Your task to perform on an android device: Search for "dell xps" on bestbuy, select the first entry, add it to the cart, then select checkout. Image 0: 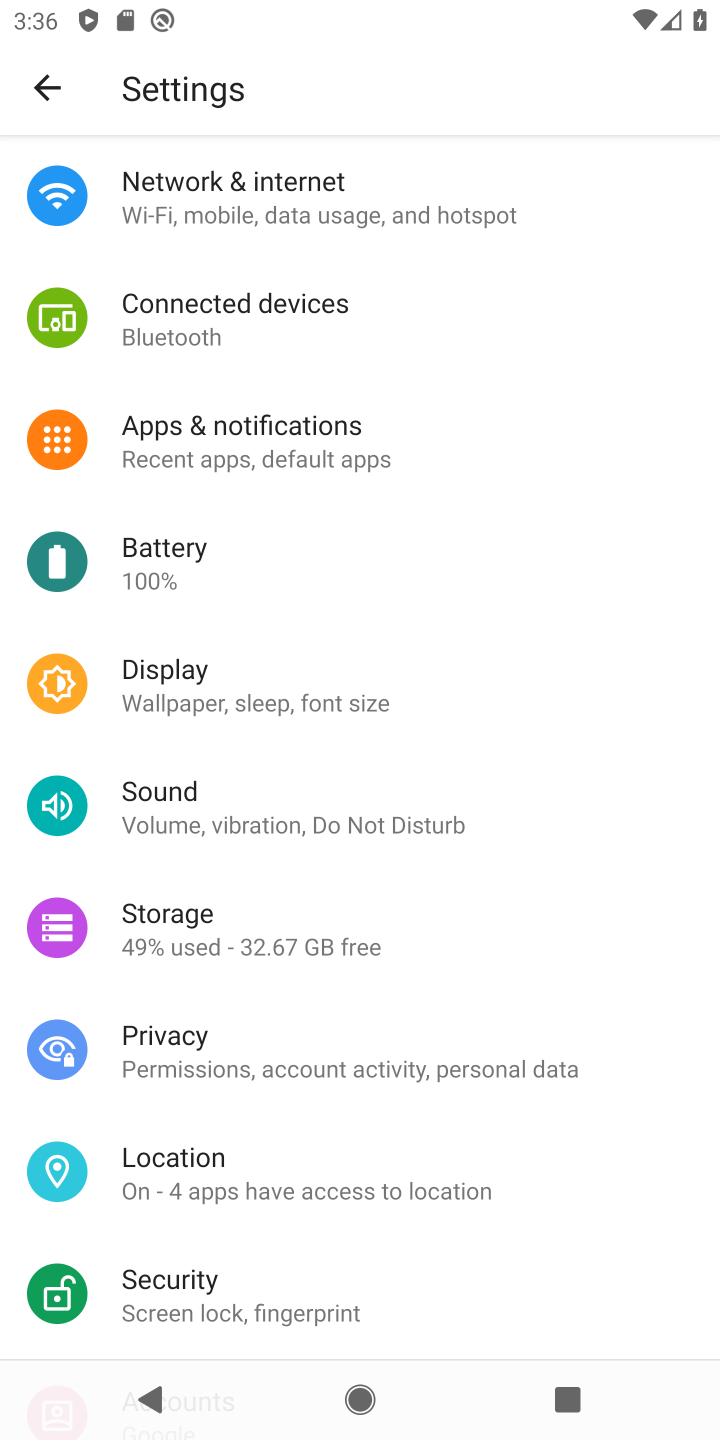
Step 0: press home button
Your task to perform on an android device: Search for "dell xps" on bestbuy, select the first entry, add it to the cart, then select checkout. Image 1: 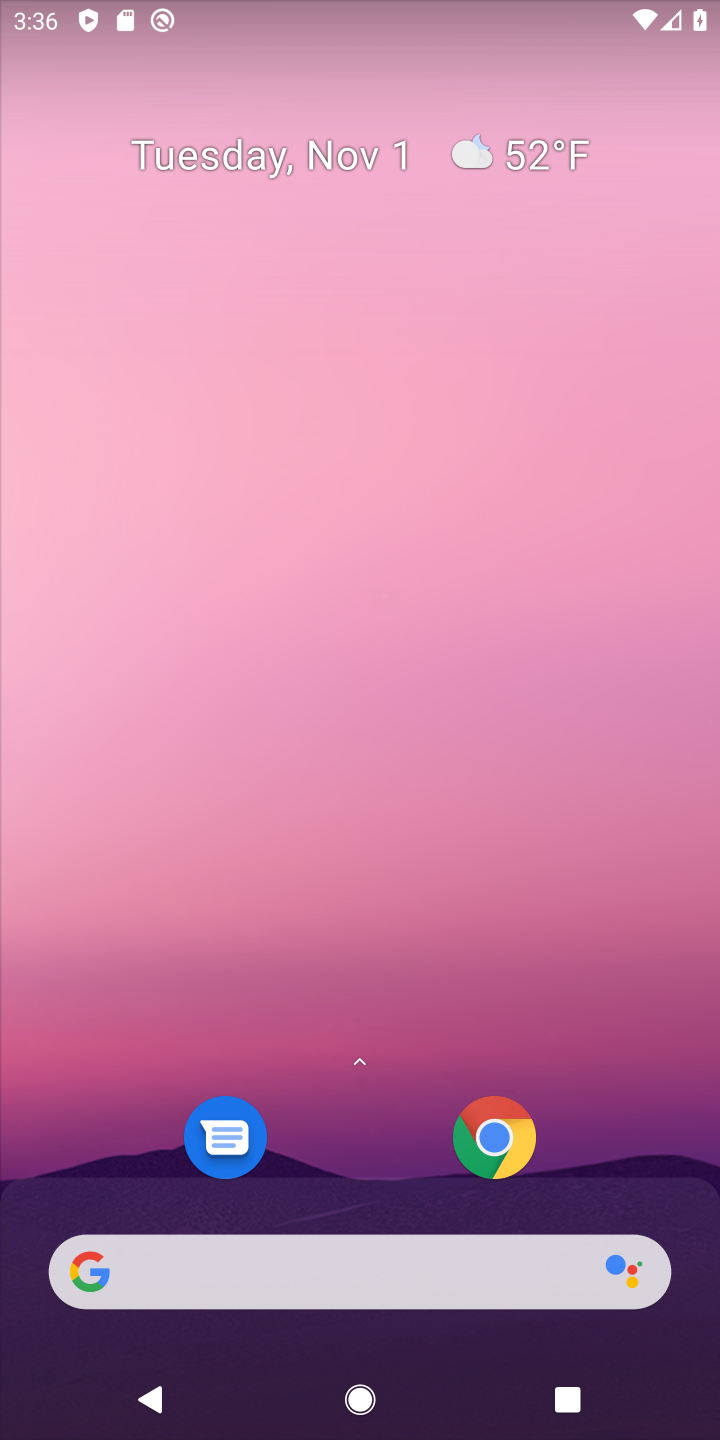
Step 1: click (391, 1239)
Your task to perform on an android device: Search for "dell xps" on bestbuy, select the first entry, add it to the cart, then select checkout. Image 2: 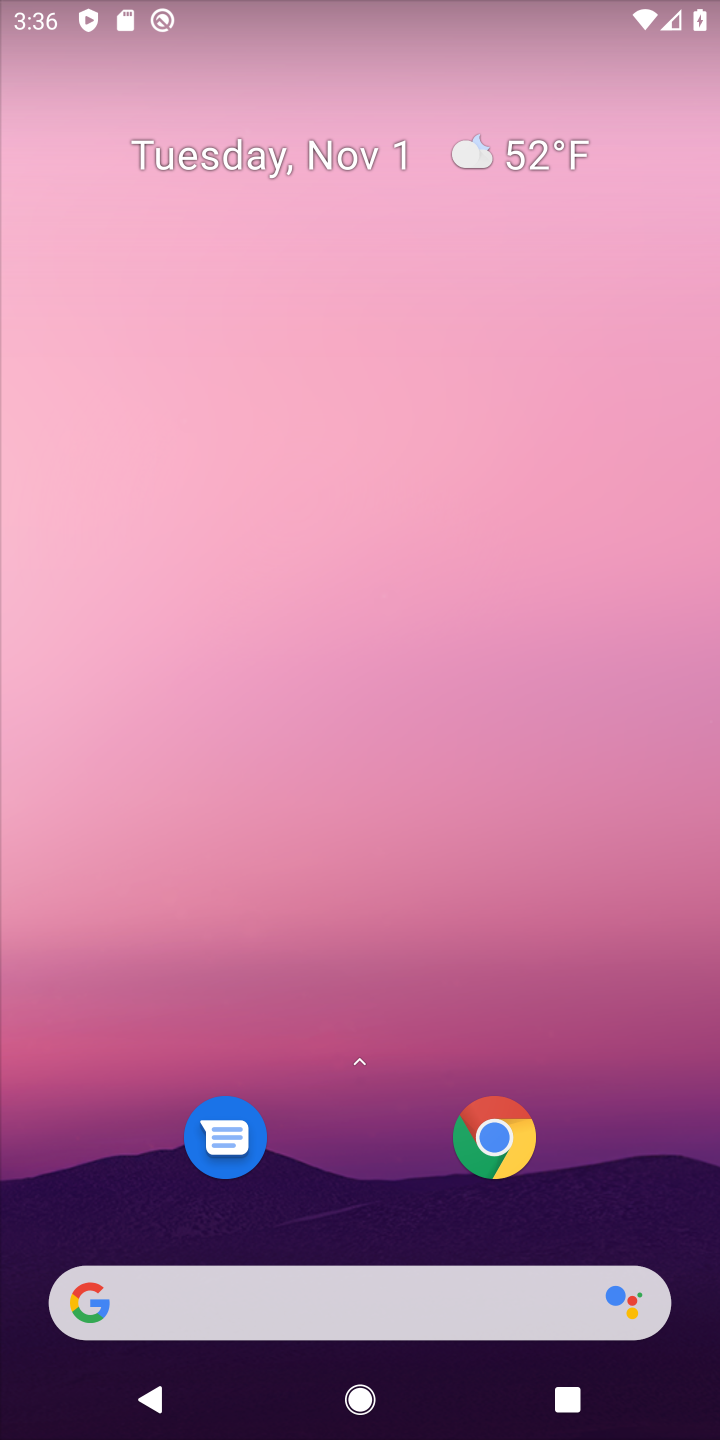
Step 2: click (360, 1269)
Your task to perform on an android device: Search for "dell xps" on bestbuy, select the first entry, add it to the cart, then select checkout. Image 3: 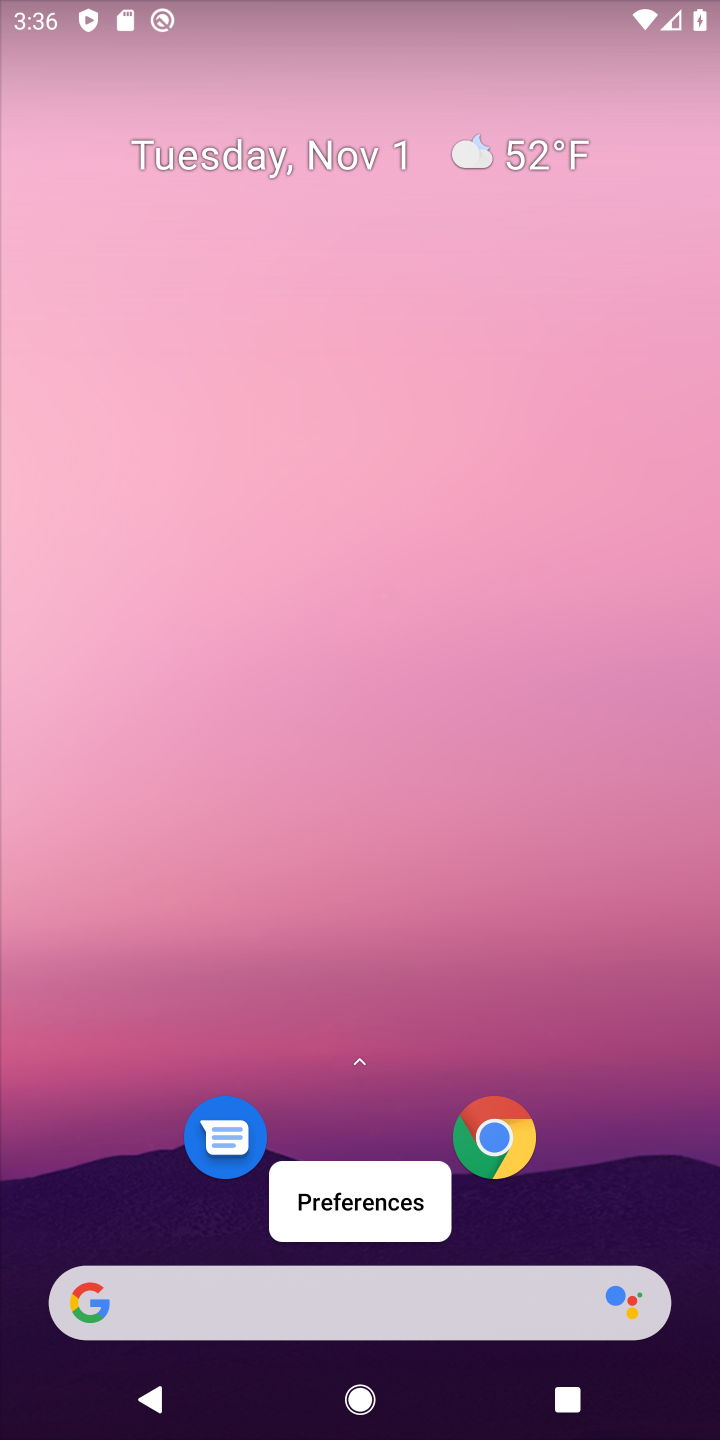
Step 3: click (387, 1295)
Your task to perform on an android device: Search for "dell xps" on bestbuy, select the first entry, add it to the cart, then select checkout. Image 4: 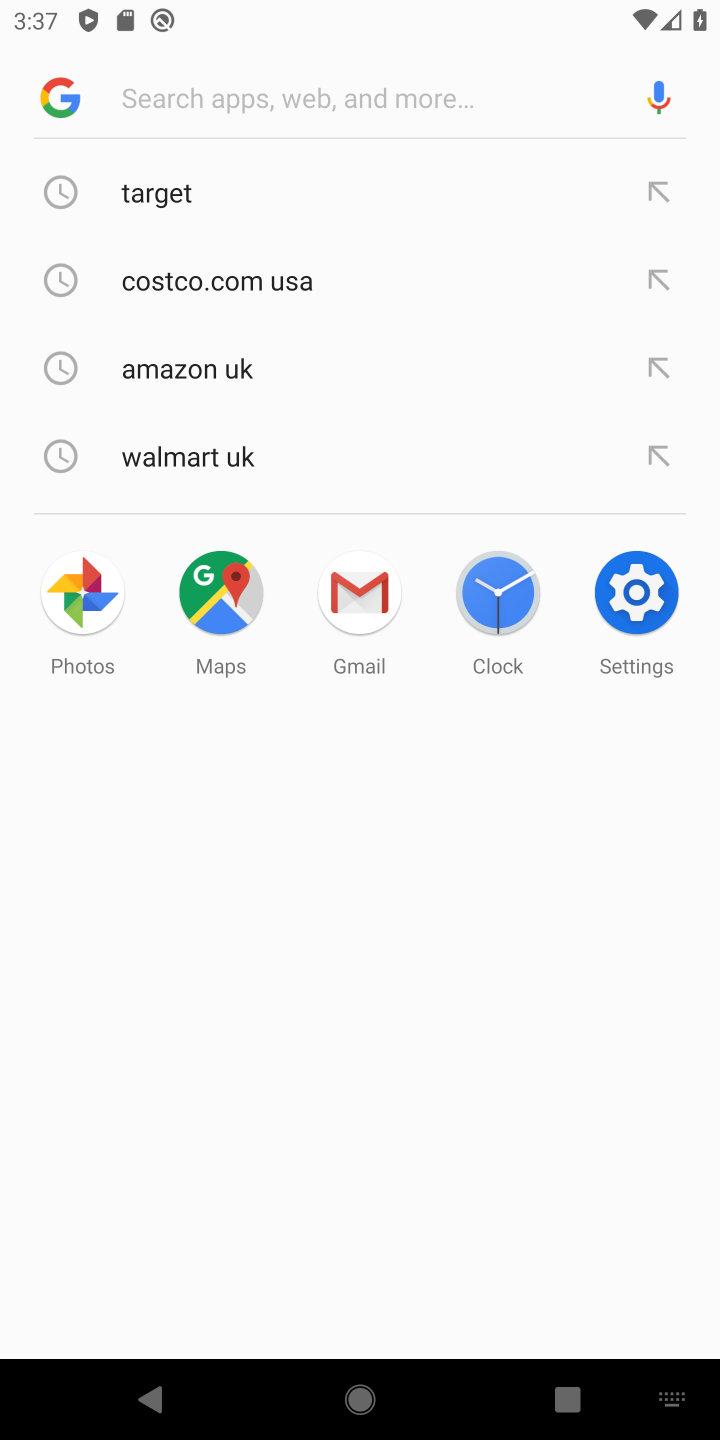
Step 4: type "bestbuy"
Your task to perform on an android device: Search for "dell xps" on bestbuy, select the first entry, add it to the cart, then select checkout. Image 5: 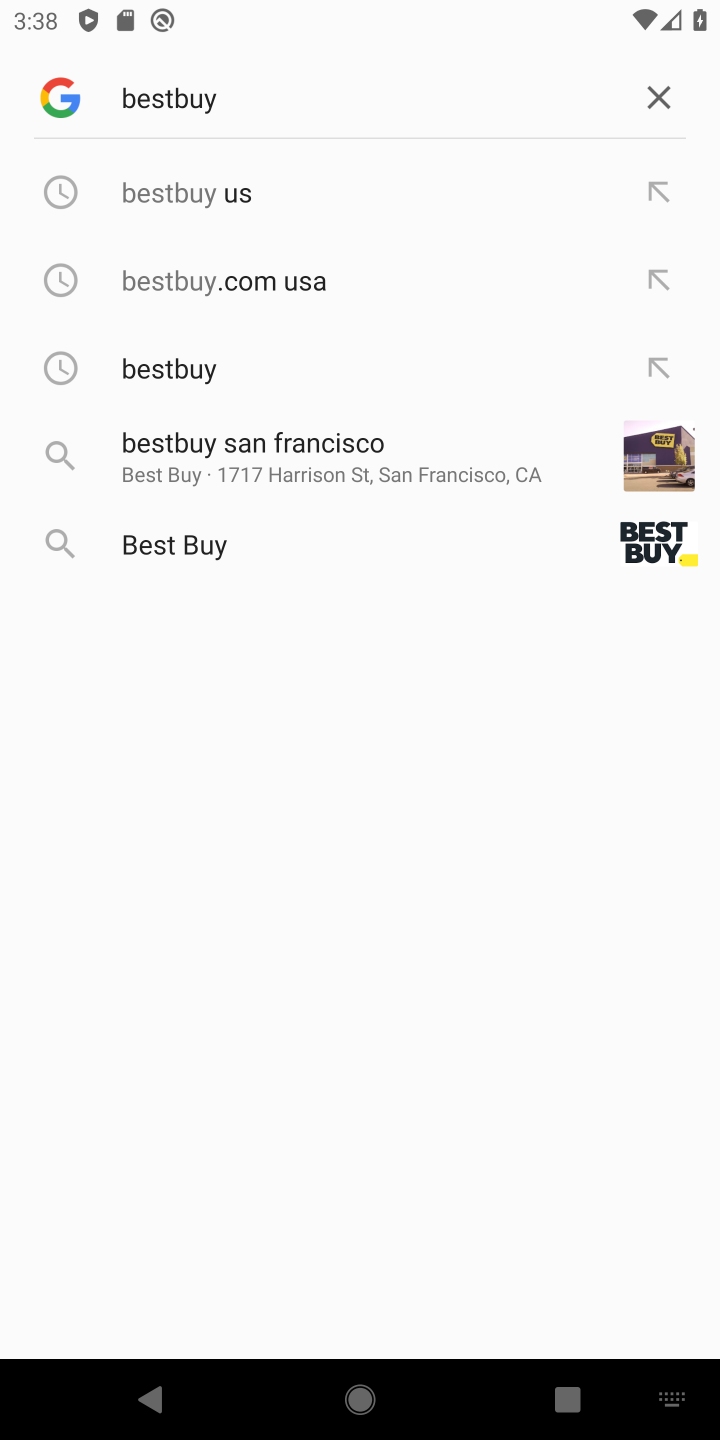
Step 5: click (155, 156)
Your task to perform on an android device: Search for "dell xps" on bestbuy, select the first entry, add it to the cart, then select checkout. Image 6: 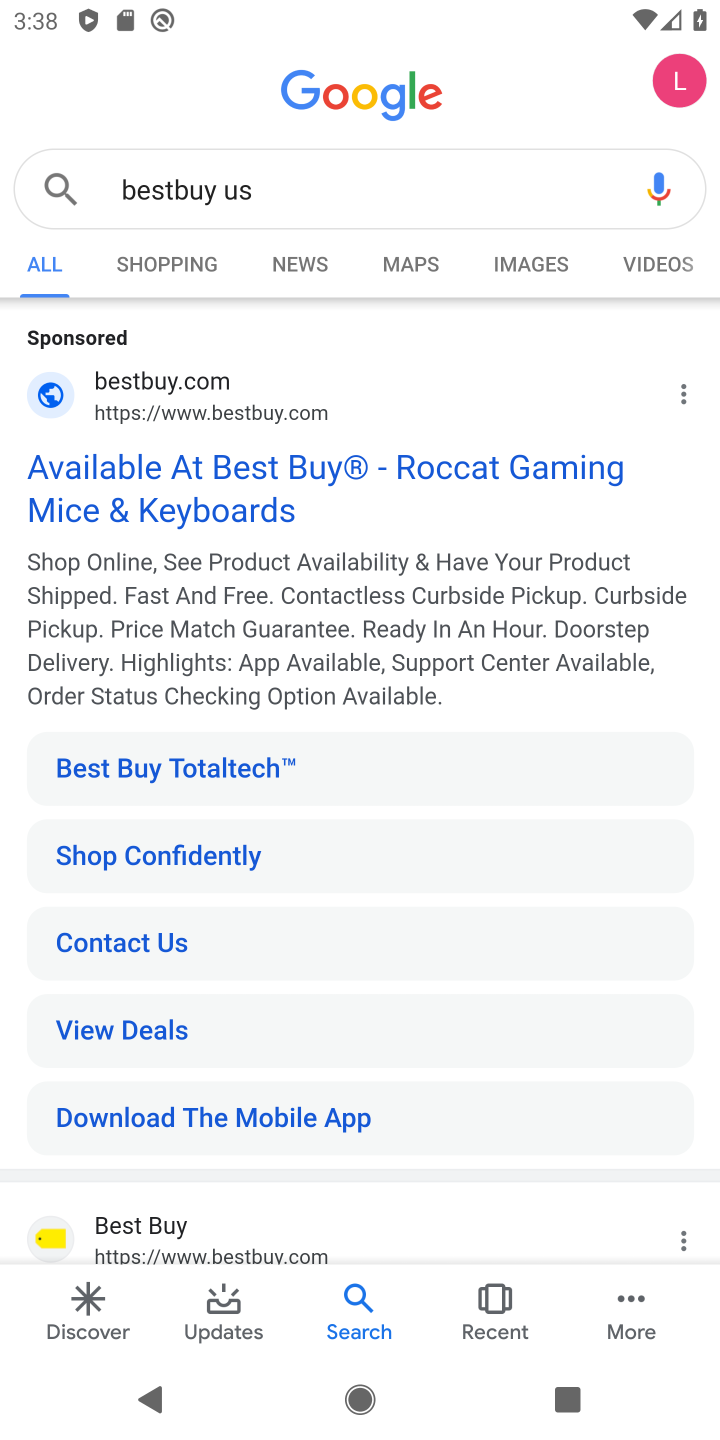
Step 6: click (161, 502)
Your task to perform on an android device: Search for "dell xps" on bestbuy, select the first entry, add it to the cart, then select checkout. Image 7: 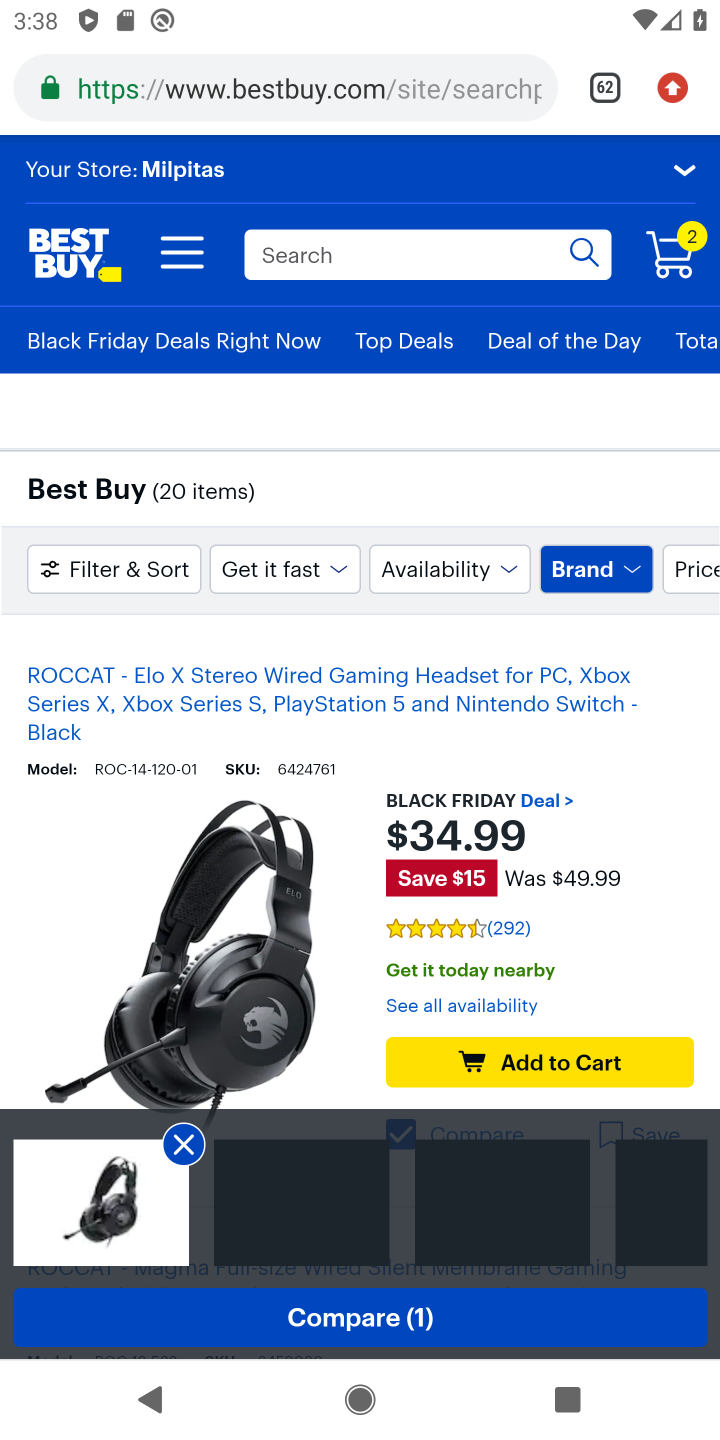
Step 7: click (358, 270)
Your task to perform on an android device: Search for "dell xps" on bestbuy, select the first entry, add it to the cart, then select checkout. Image 8: 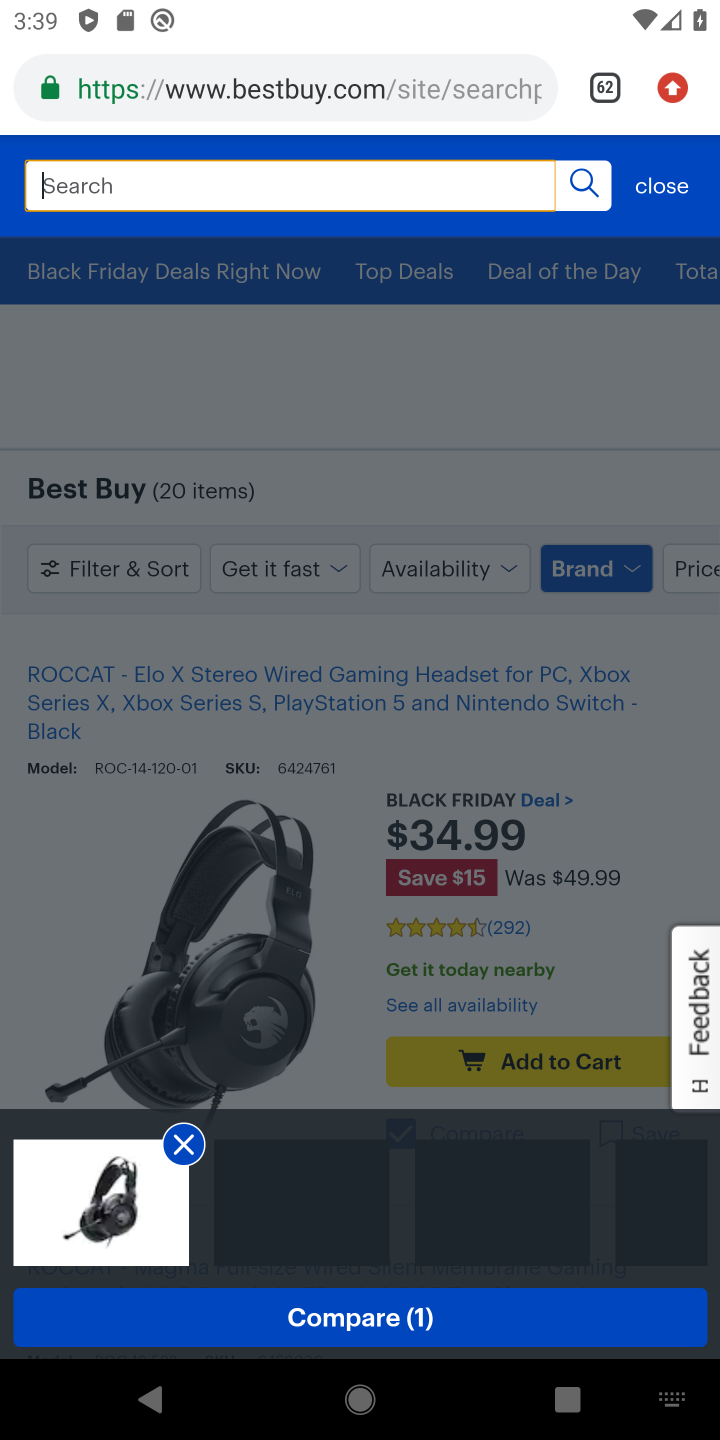
Step 8: type "dell xps"
Your task to perform on an android device: Search for "dell xps" on bestbuy, select the first entry, add it to the cart, then select checkout. Image 9: 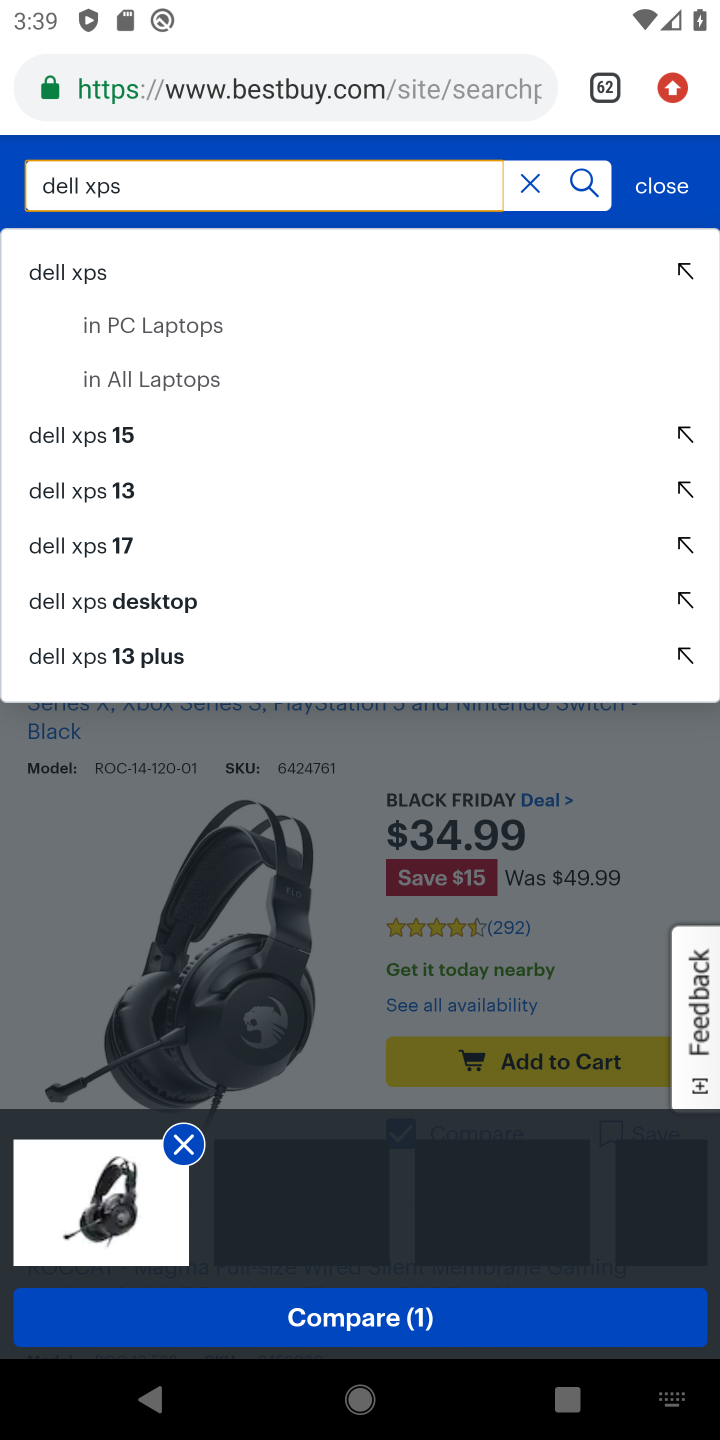
Step 9: click (124, 286)
Your task to perform on an android device: Search for "dell xps" on bestbuy, select the first entry, add it to the cart, then select checkout. Image 10: 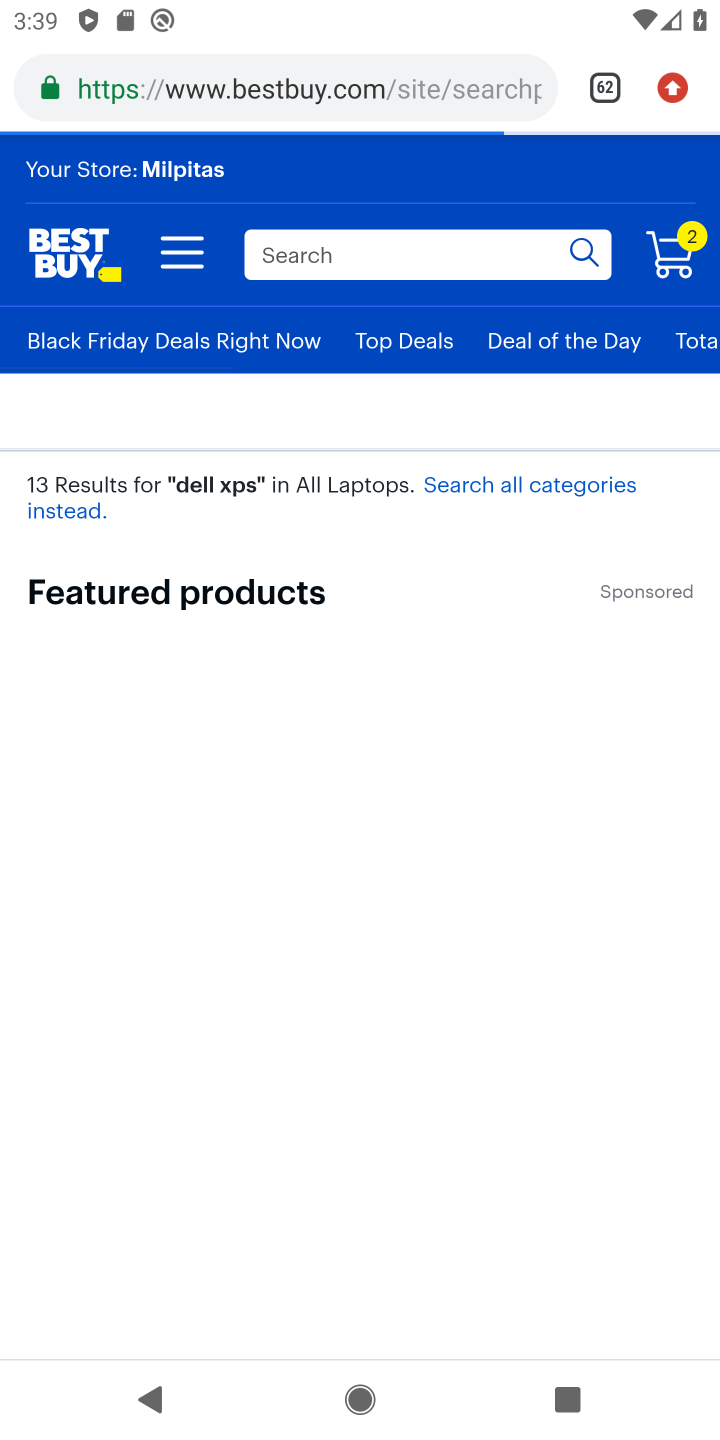
Step 10: click (587, 192)
Your task to perform on an android device: Search for "dell xps" on bestbuy, select the first entry, add it to the cart, then select checkout. Image 11: 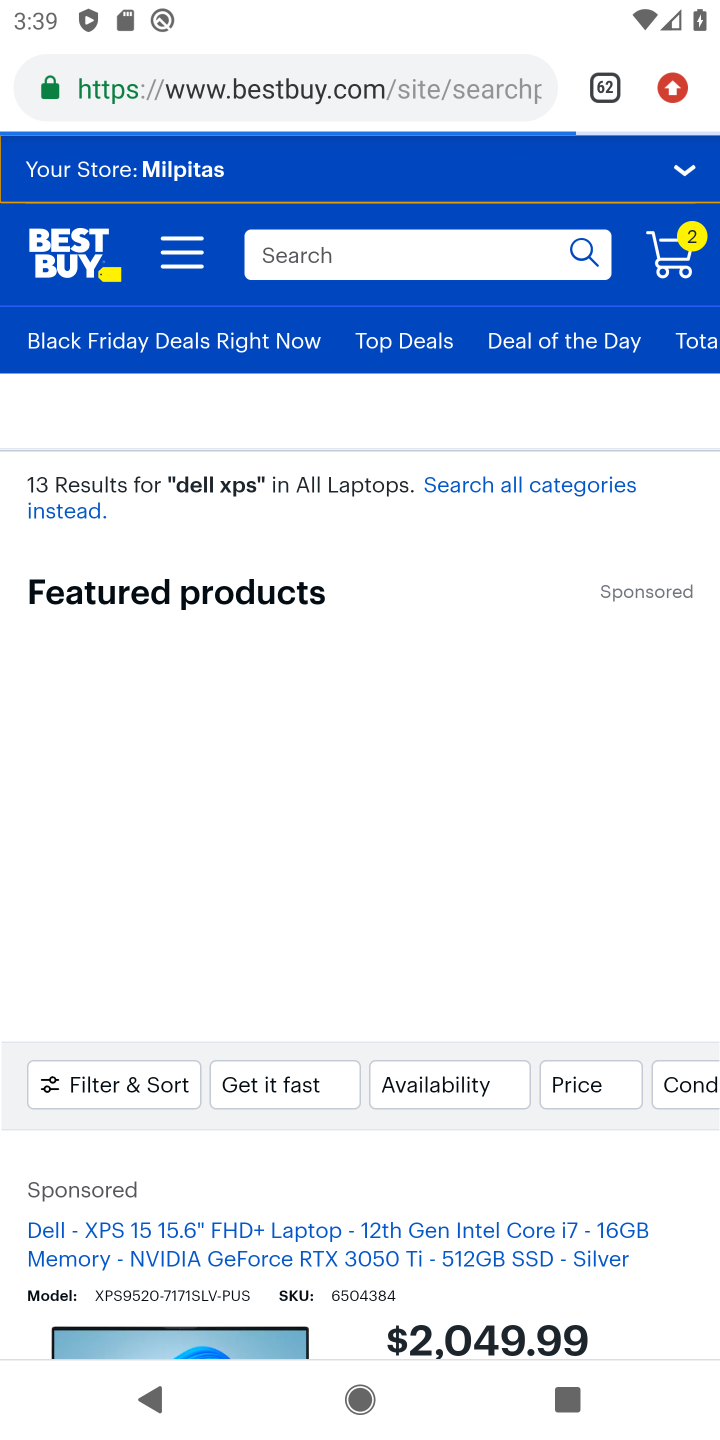
Step 11: drag from (470, 1214) to (473, 842)
Your task to perform on an android device: Search for "dell xps" on bestbuy, select the first entry, add it to the cart, then select checkout. Image 12: 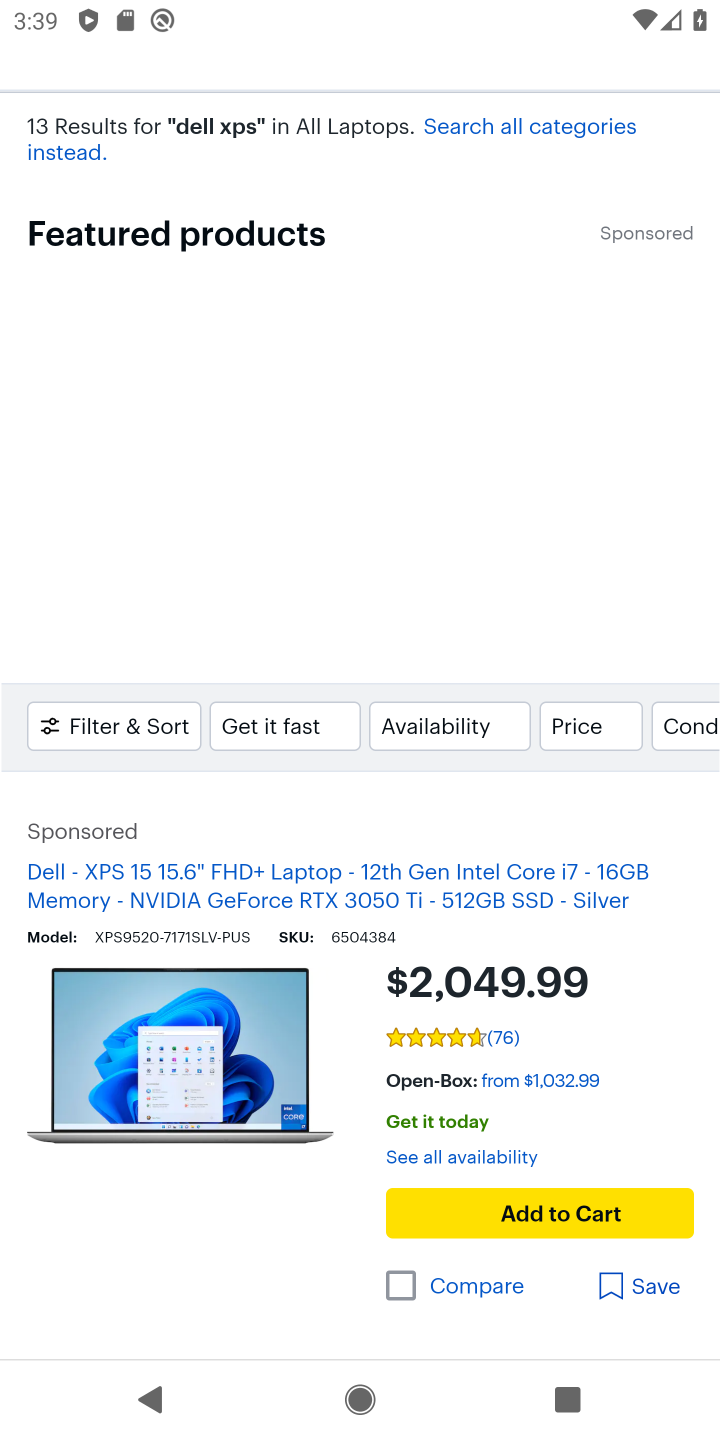
Step 12: click (608, 1287)
Your task to perform on an android device: Search for "dell xps" on bestbuy, select the first entry, add it to the cart, then select checkout. Image 13: 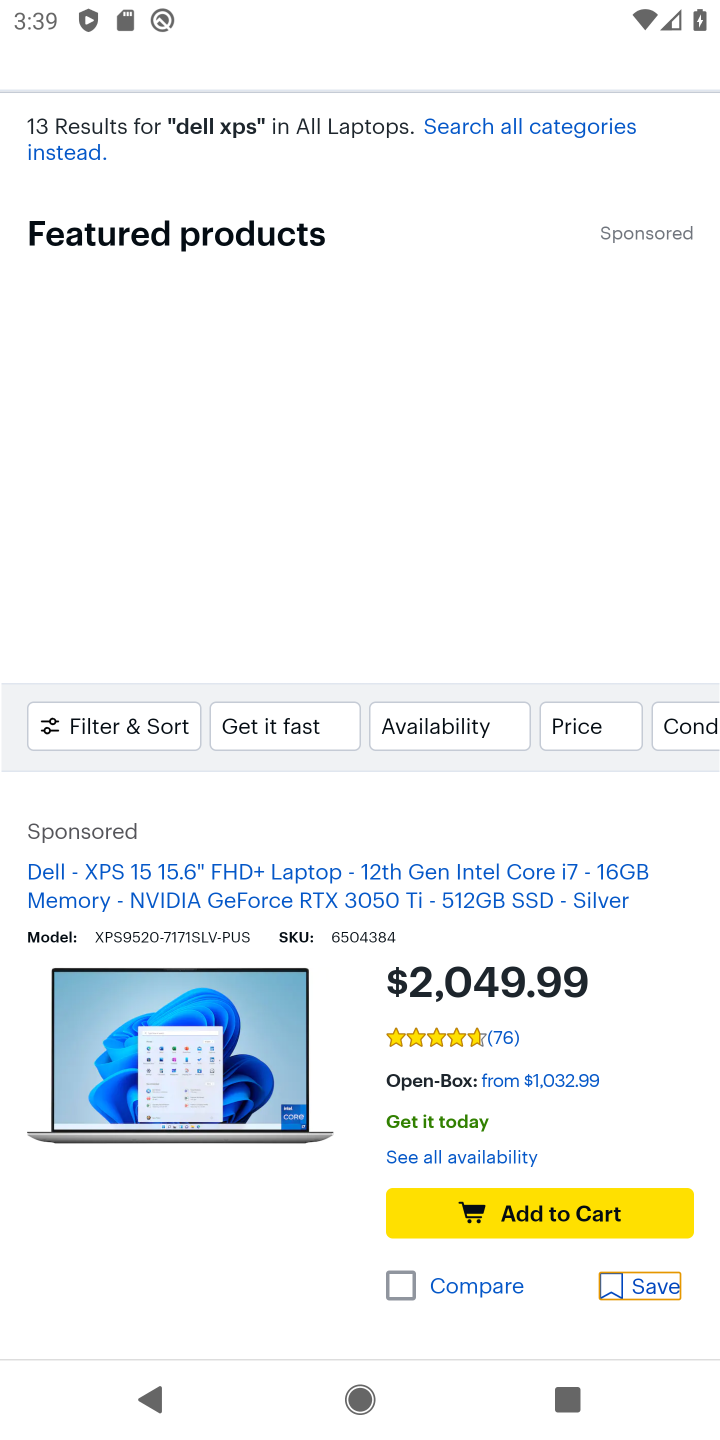
Step 13: task complete